Your task to perform on an android device: open a bookmark in the chrome app Image 0: 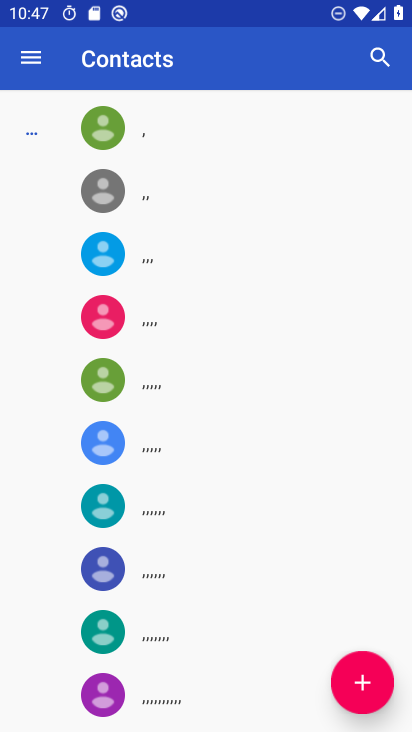
Step 0: press home button
Your task to perform on an android device: open a bookmark in the chrome app Image 1: 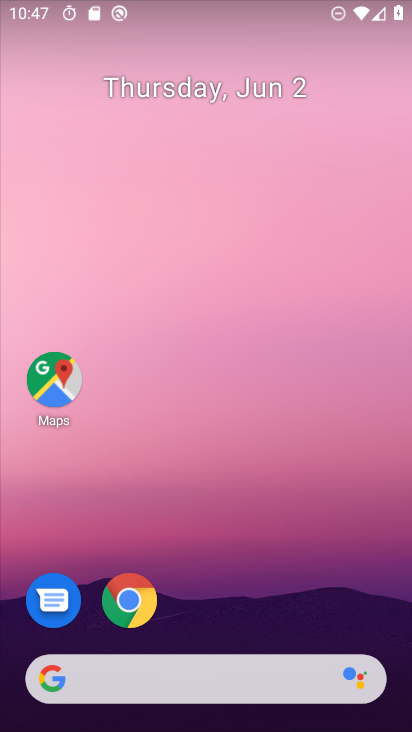
Step 1: click (126, 602)
Your task to perform on an android device: open a bookmark in the chrome app Image 2: 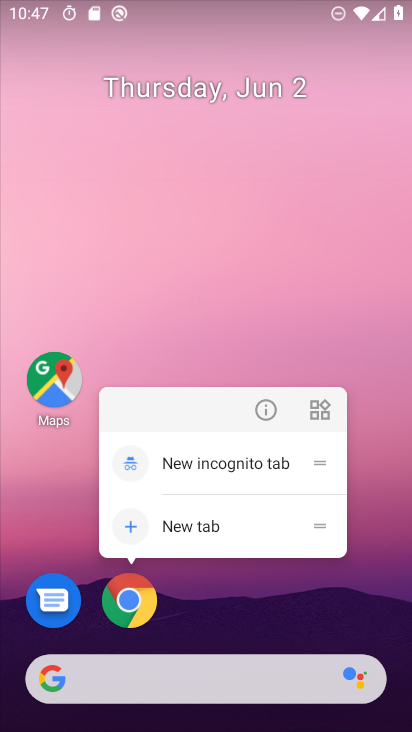
Step 2: click (132, 593)
Your task to perform on an android device: open a bookmark in the chrome app Image 3: 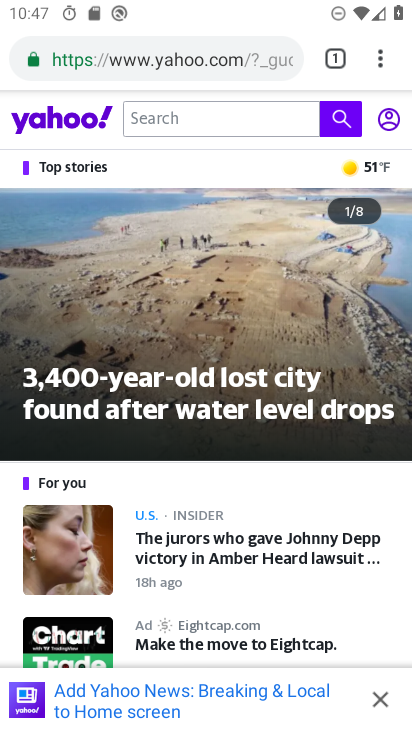
Step 3: click (376, 53)
Your task to perform on an android device: open a bookmark in the chrome app Image 4: 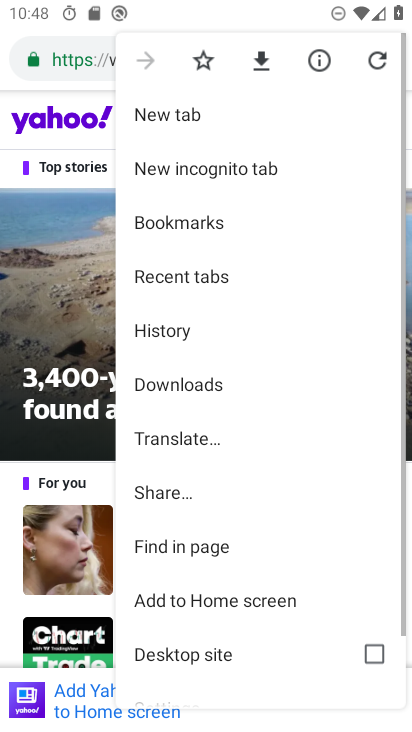
Step 4: click (200, 206)
Your task to perform on an android device: open a bookmark in the chrome app Image 5: 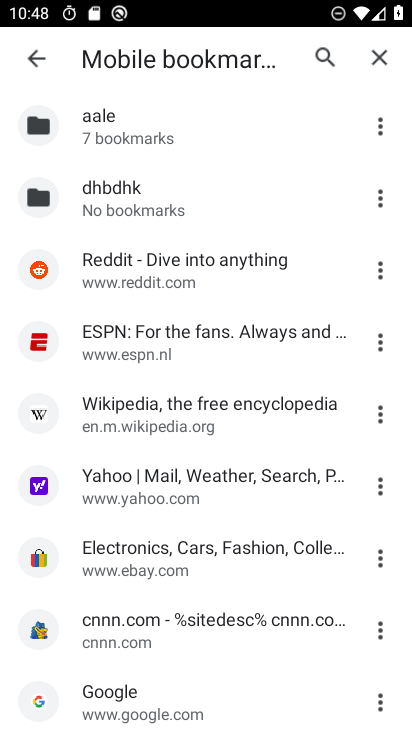
Step 5: click (126, 419)
Your task to perform on an android device: open a bookmark in the chrome app Image 6: 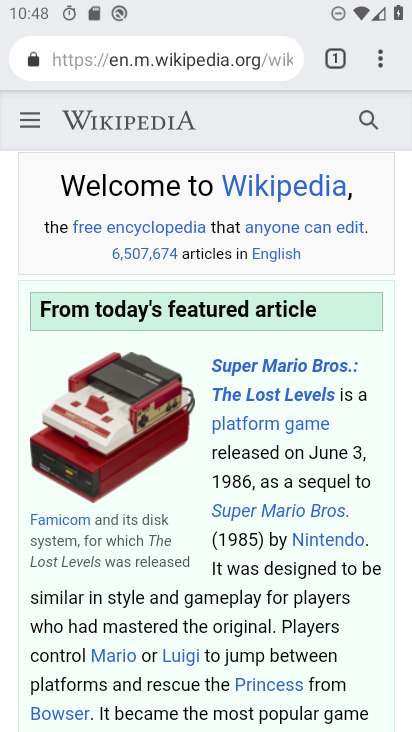
Step 6: task complete